Your task to perform on an android device: search for starred emails in the gmail app Image 0: 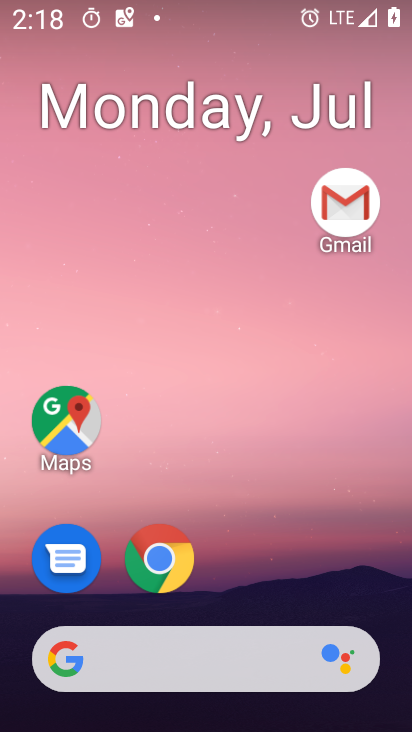
Step 0: drag from (317, 517) to (320, 112)
Your task to perform on an android device: search for starred emails in the gmail app Image 1: 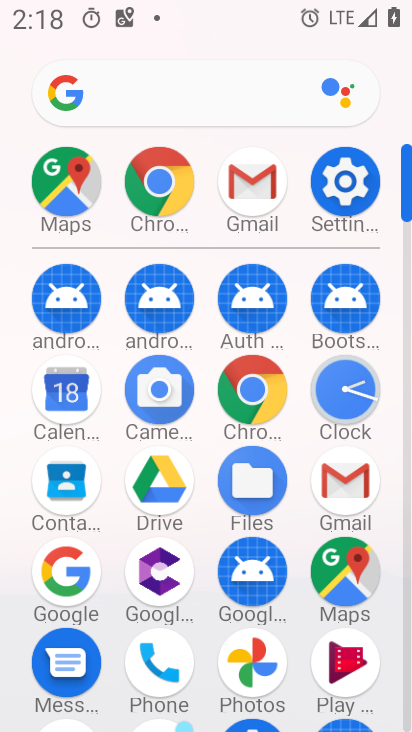
Step 1: click (357, 469)
Your task to perform on an android device: search for starred emails in the gmail app Image 2: 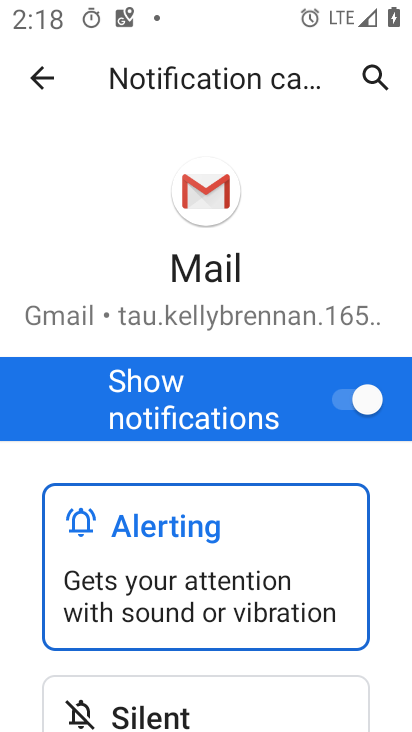
Step 2: press back button
Your task to perform on an android device: search for starred emails in the gmail app Image 3: 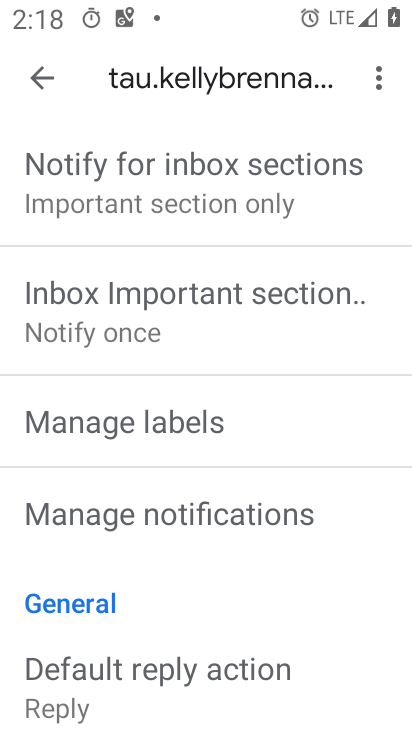
Step 3: press back button
Your task to perform on an android device: search for starred emails in the gmail app Image 4: 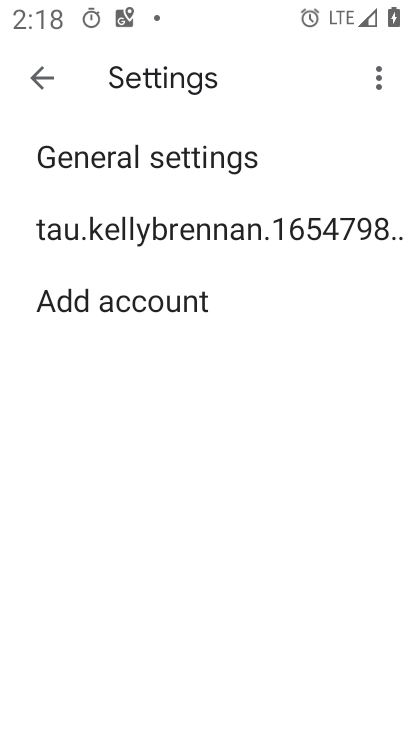
Step 4: press back button
Your task to perform on an android device: search for starred emails in the gmail app Image 5: 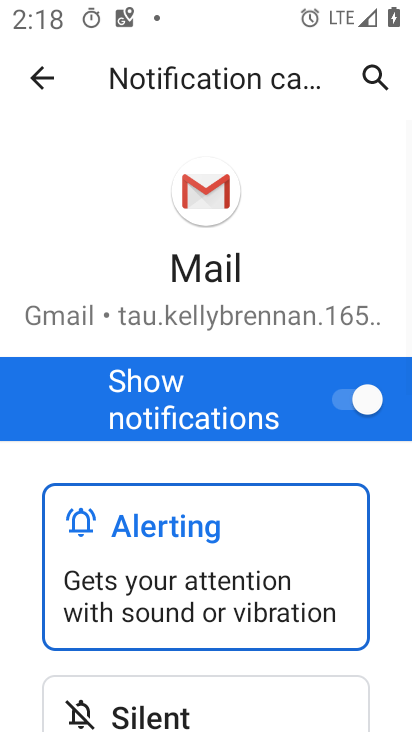
Step 5: press back button
Your task to perform on an android device: search for starred emails in the gmail app Image 6: 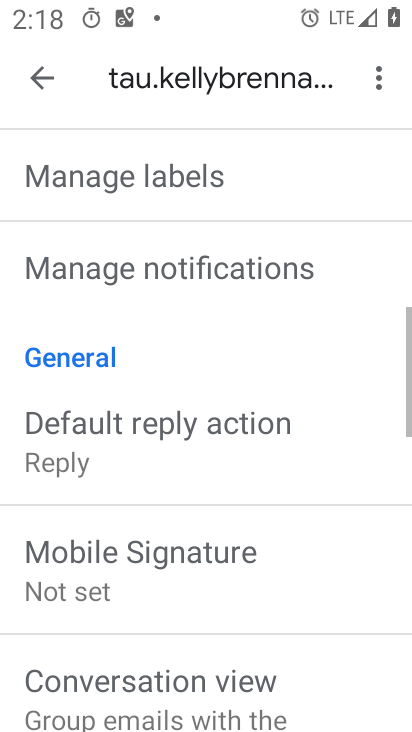
Step 6: press back button
Your task to perform on an android device: search for starred emails in the gmail app Image 7: 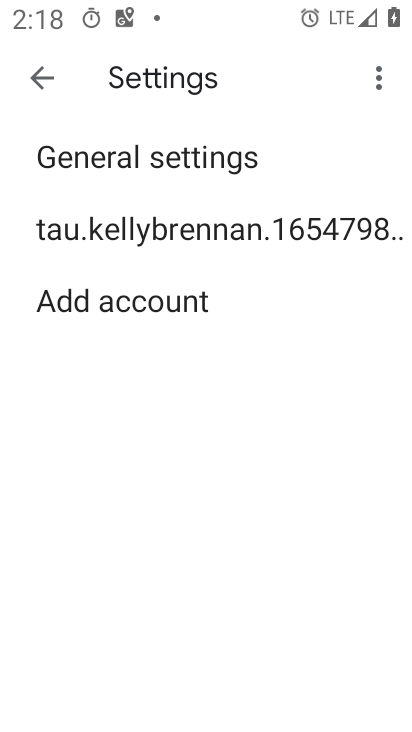
Step 7: press back button
Your task to perform on an android device: search for starred emails in the gmail app Image 8: 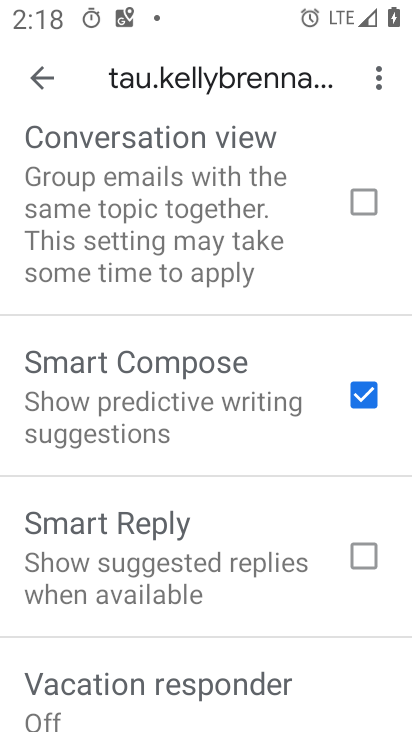
Step 8: click (34, 71)
Your task to perform on an android device: search for starred emails in the gmail app Image 9: 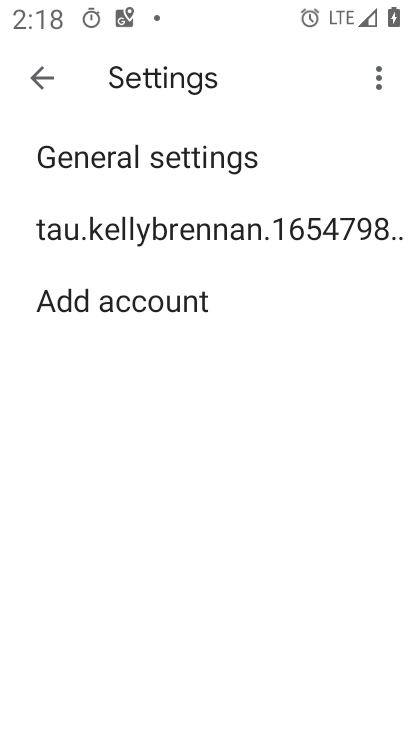
Step 9: click (34, 71)
Your task to perform on an android device: search for starred emails in the gmail app Image 10: 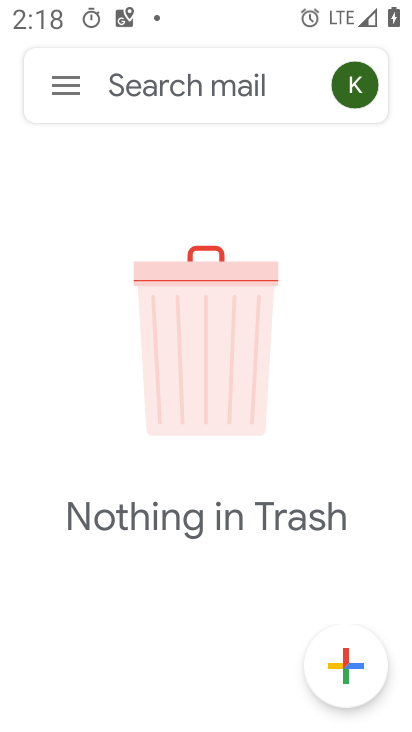
Step 10: click (71, 96)
Your task to perform on an android device: search for starred emails in the gmail app Image 11: 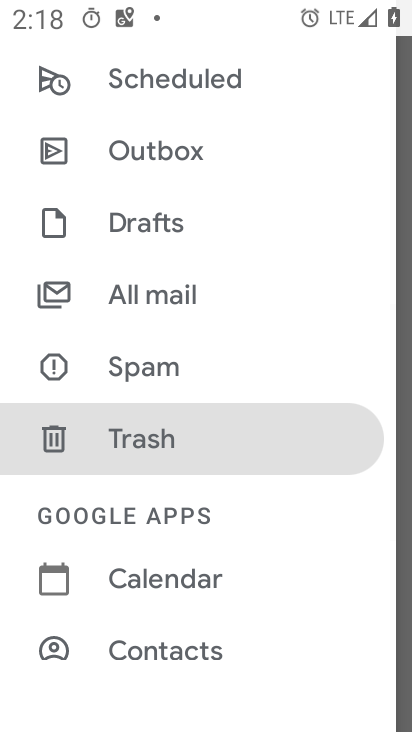
Step 11: drag from (304, 227) to (304, 324)
Your task to perform on an android device: search for starred emails in the gmail app Image 12: 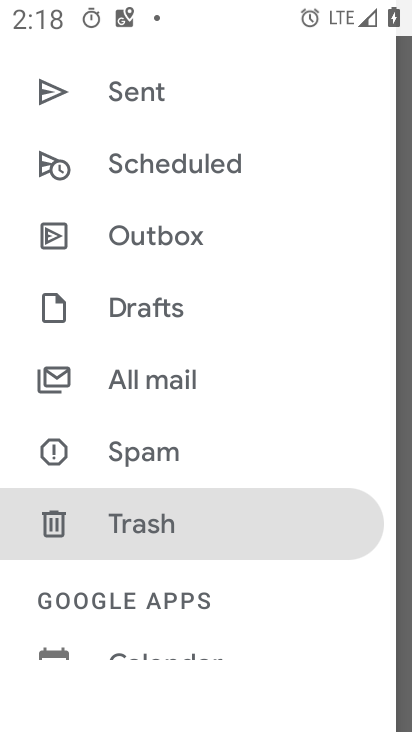
Step 12: drag from (285, 212) to (287, 304)
Your task to perform on an android device: search for starred emails in the gmail app Image 13: 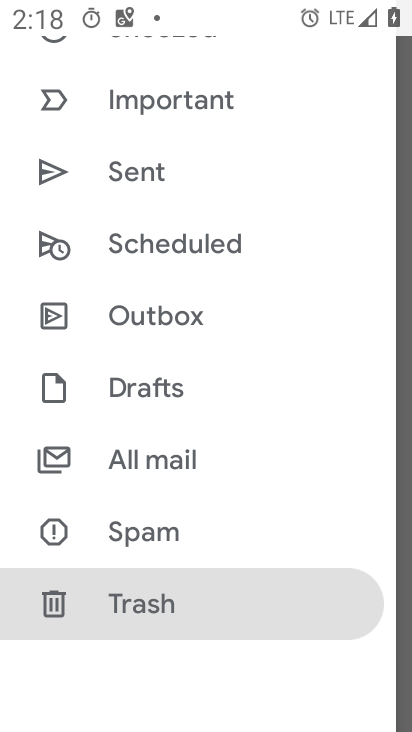
Step 13: drag from (294, 166) to (309, 282)
Your task to perform on an android device: search for starred emails in the gmail app Image 14: 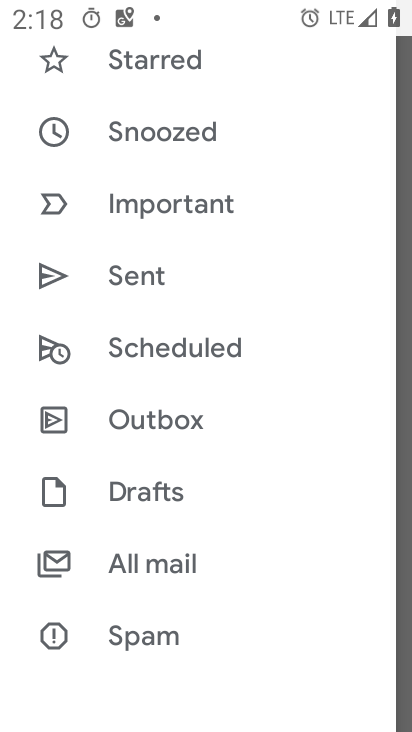
Step 14: drag from (307, 163) to (310, 322)
Your task to perform on an android device: search for starred emails in the gmail app Image 15: 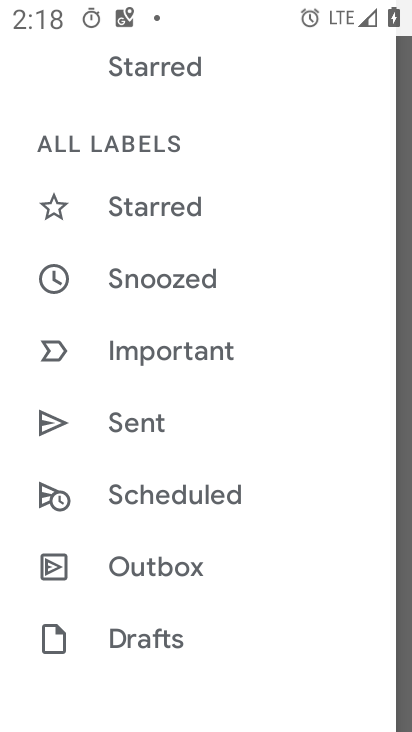
Step 15: drag from (288, 178) to (298, 278)
Your task to perform on an android device: search for starred emails in the gmail app Image 16: 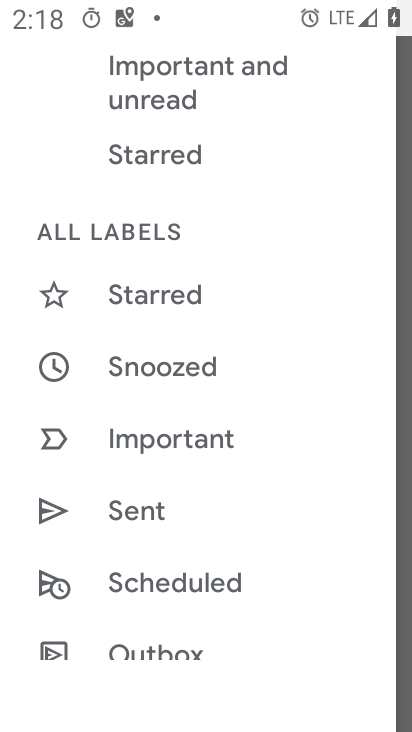
Step 16: click (240, 297)
Your task to perform on an android device: search for starred emails in the gmail app Image 17: 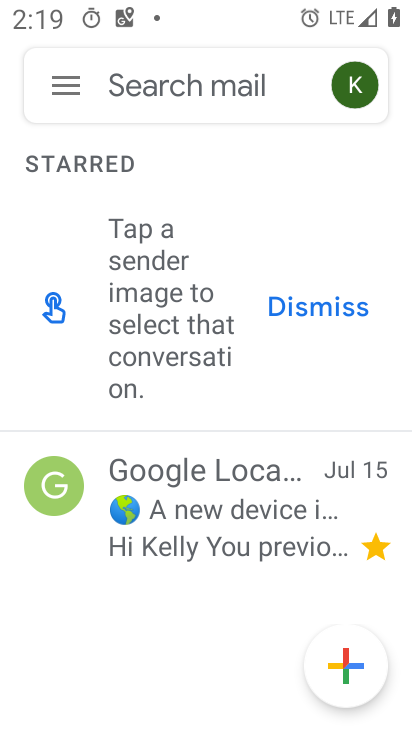
Step 17: task complete